Your task to perform on an android device: When is my next appointment? Image 0: 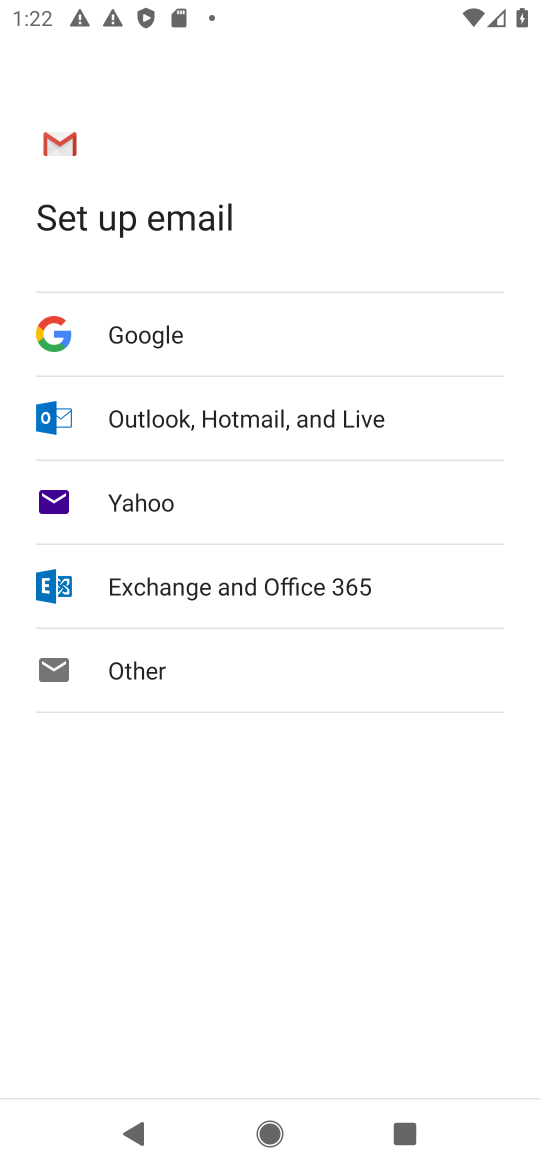
Step 0: press home button
Your task to perform on an android device: When is my next appointment? Image 1: 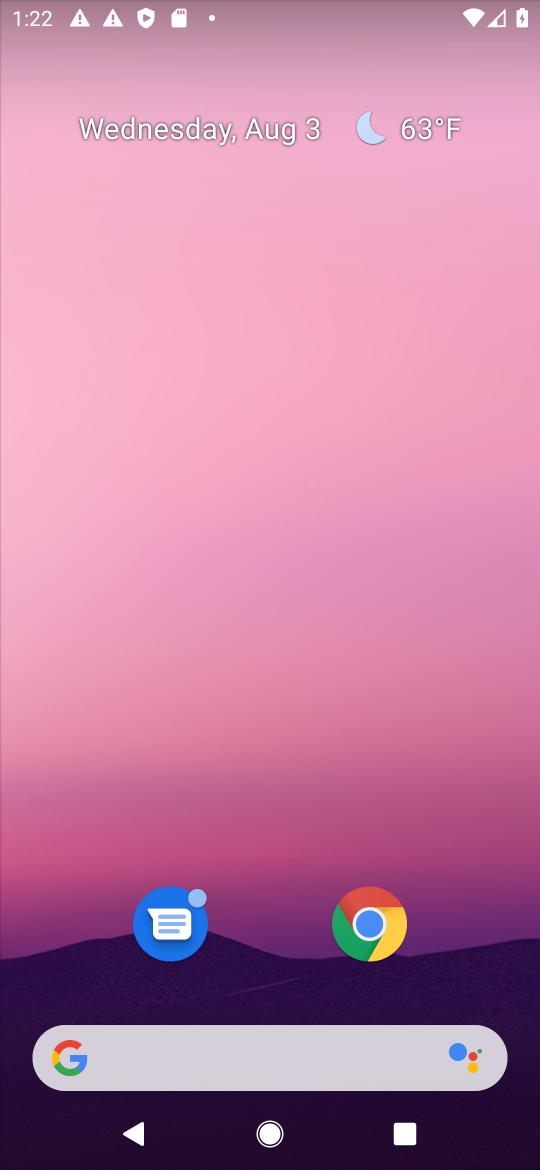
Step 1: drag from (263, 984) to (320, 134)
Your task to perform on an android device: When is my next appointment? Image 2: 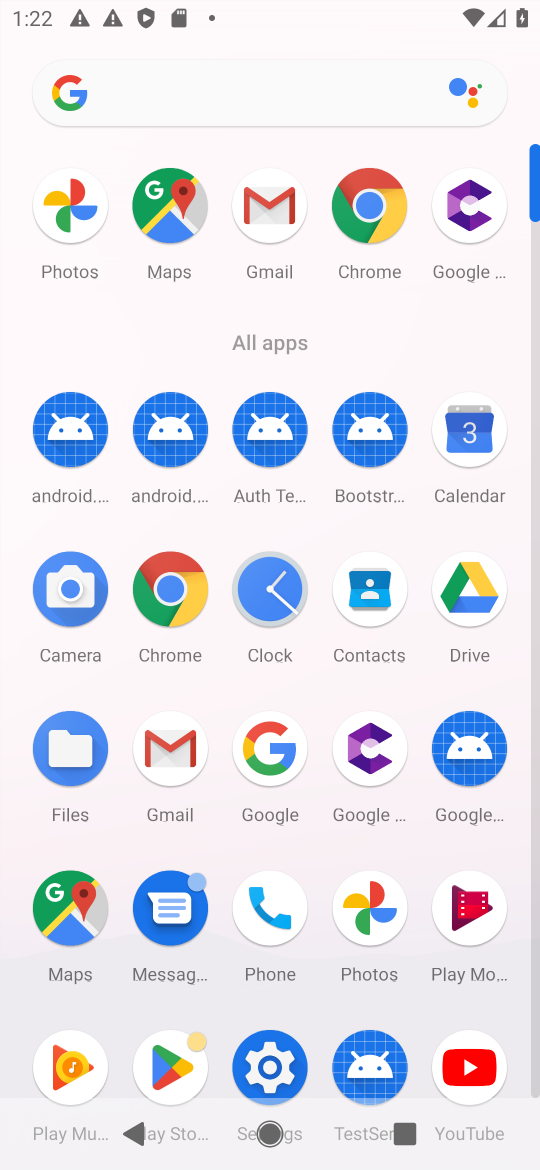
Step 2: click (481, 429)
Your task to perform on an android device: When is my next appointment? Image 3: 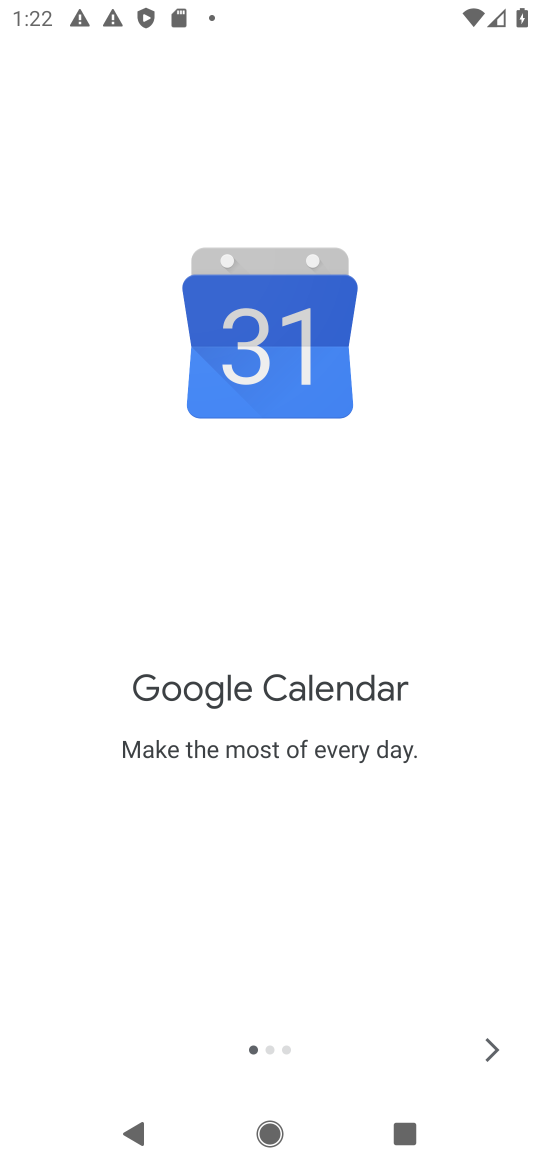
Step 3: click (491, 1038)
Your task to perform on an android device: When is my next appointment? Image 4: 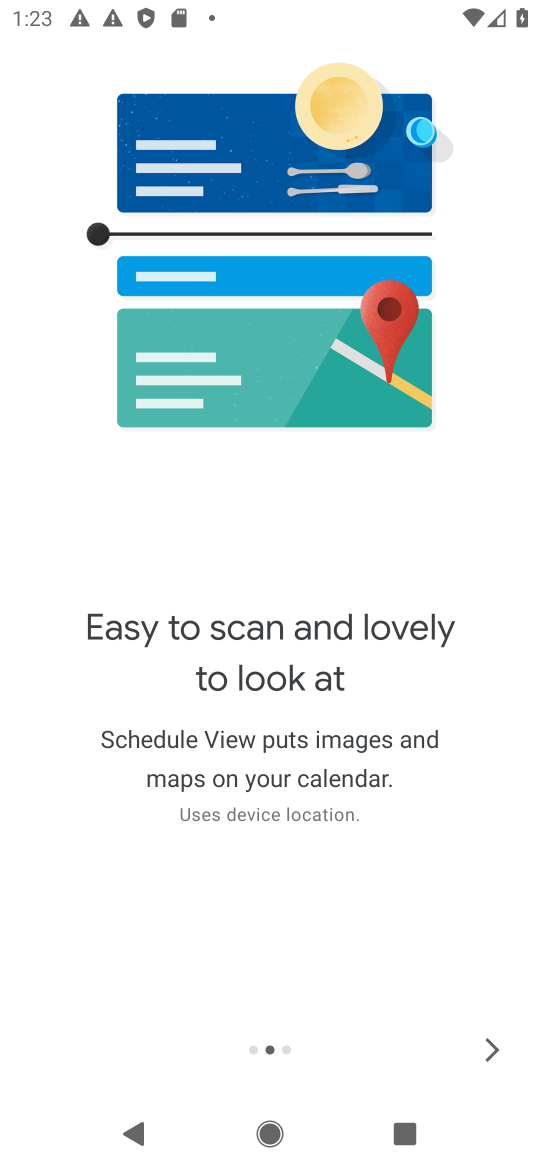
Step 4: click (503, 1049)
Your task to perform on an android device: When is my next appointment? Image 5: 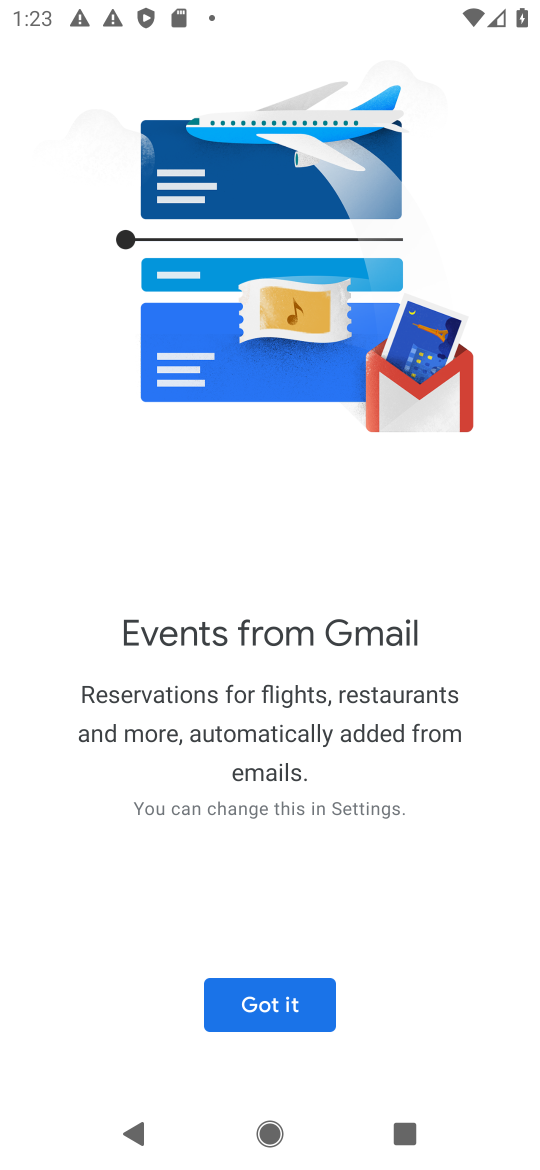
Step 5: click (272, 1002)
Your task to perform on an android device: When is my next appointment? Image 6: 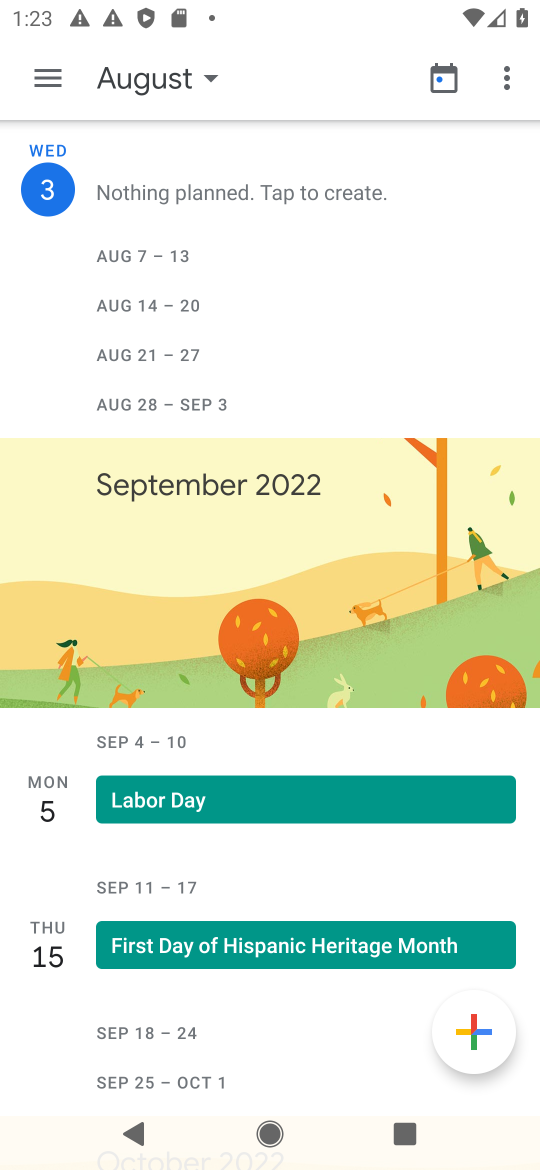
Step 6: click (52, 82)
Your task to perform on an android device: When is my next appointment? Image 7: 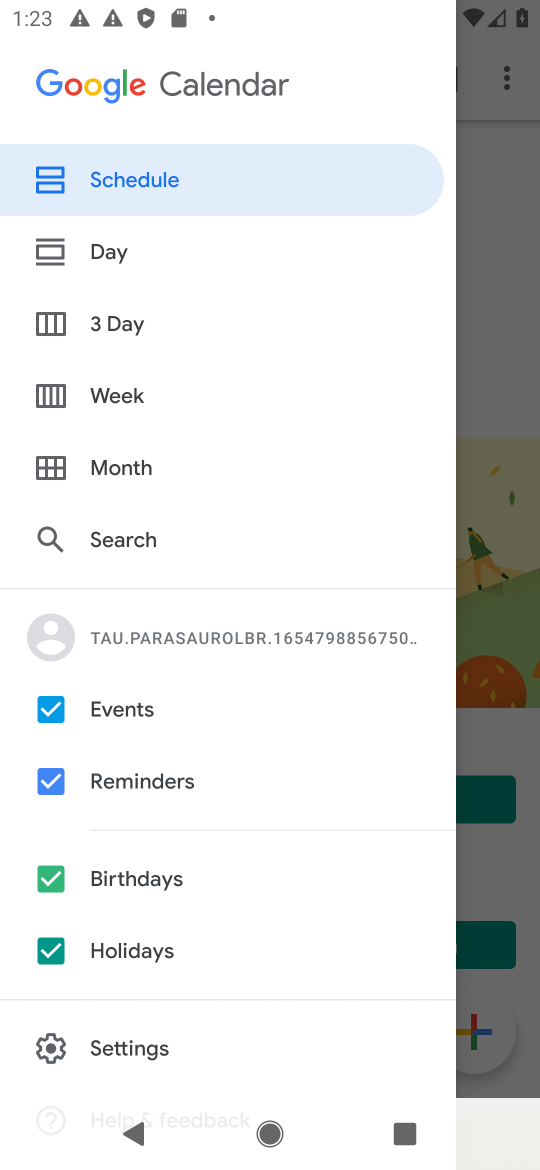
Step 7: click (114, 398)
Your task to perform on an android device: When is my next appointment? Image 8: 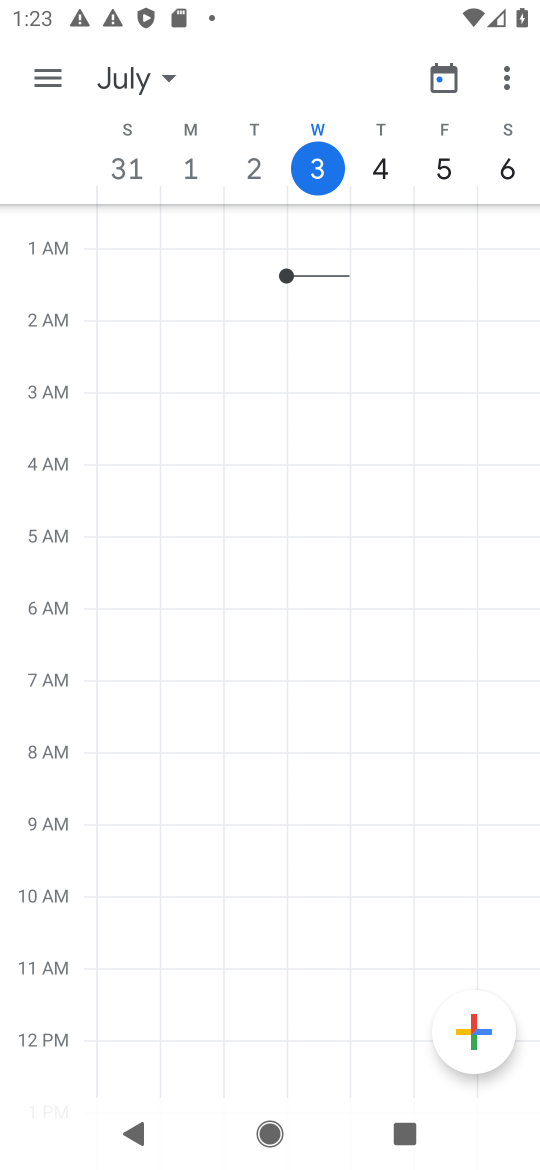
Step 8: task complete